Your task to perform on an android device: Check the weather Image 0: 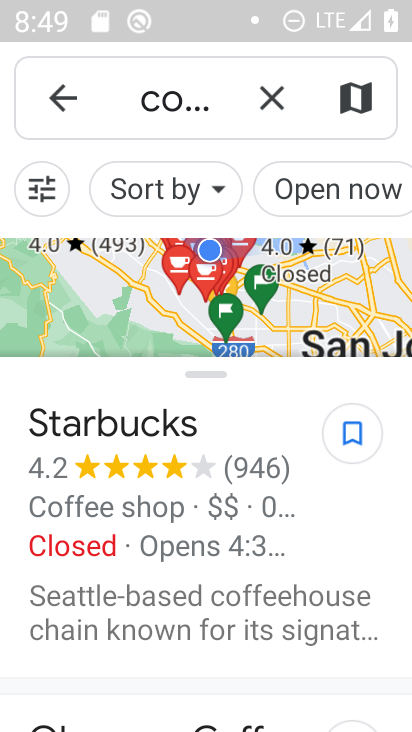
Step 0: press home button
Your task to perform on an android device: Check the weather Image 1: 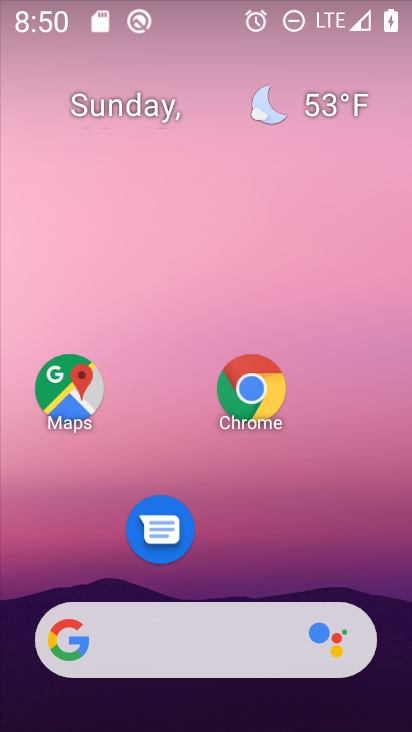
Step 1: click (307, 115)
Your task to perform on an android device: Check the weather Image 2: 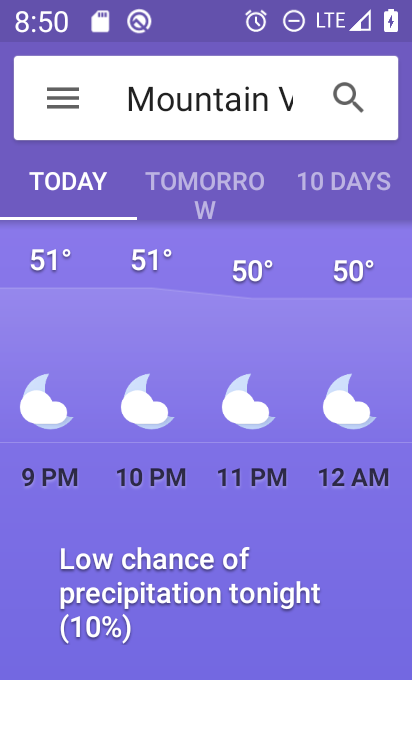
Step 2: task complete